Your task to perform on an android device: Open my contact list Image 0: 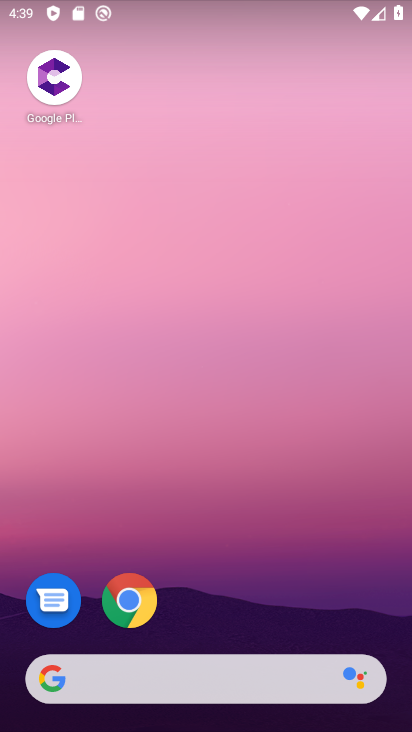
Step 0: drag from (292, 599) to (196, 8)
Your task to perform on an android device: Open my contact list Image 1: 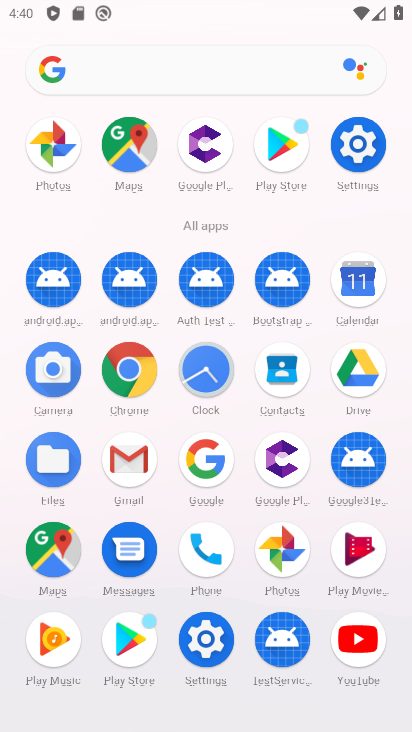
Step 1: click (286, 365)
Your task to perform on an android device: Open my contact list Image 2: 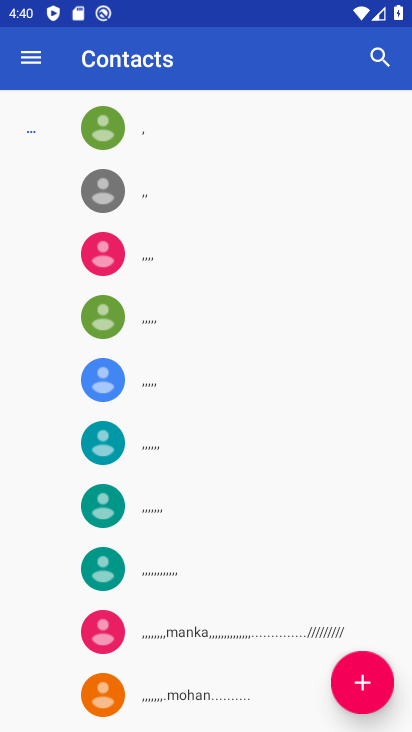
Step 2: task complete